Your task to perform on an android device: Open Youtube and go to "Your channel" Image 0: 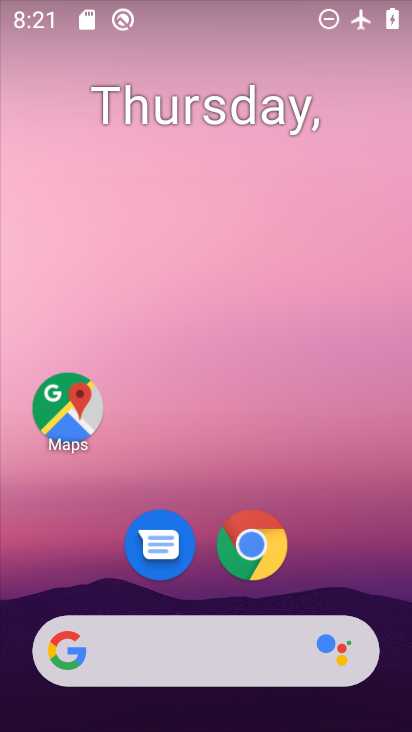
Step 0: drag from (305, 555) to (406, 266)
Your task to perform on an android device: Open Youtube and go to "Your channel" Image 1: 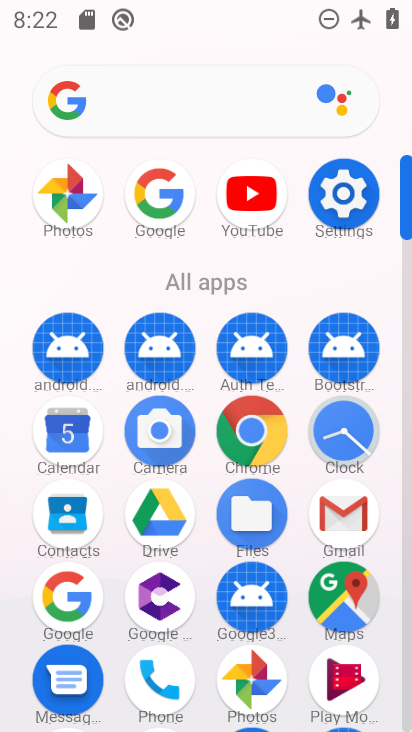
Step 1: click (253, 199)
Your task to perform on an android device: Open Youtube and go to "Your channel" Image 2: 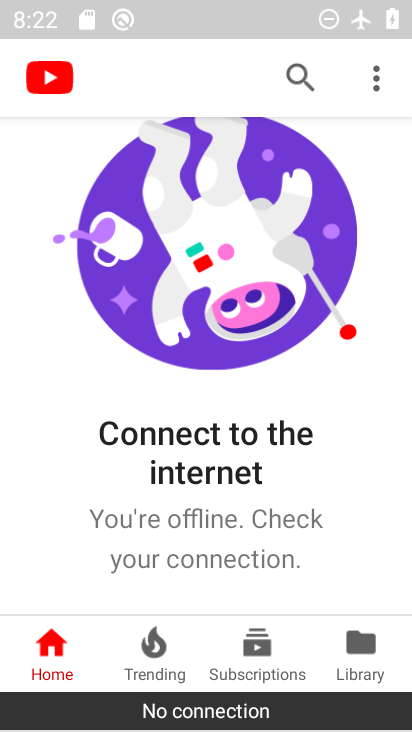
Step 2: click (165, 651)
Your task to perform on an android device: Open Youtube and go to "Your channel" Image 3: 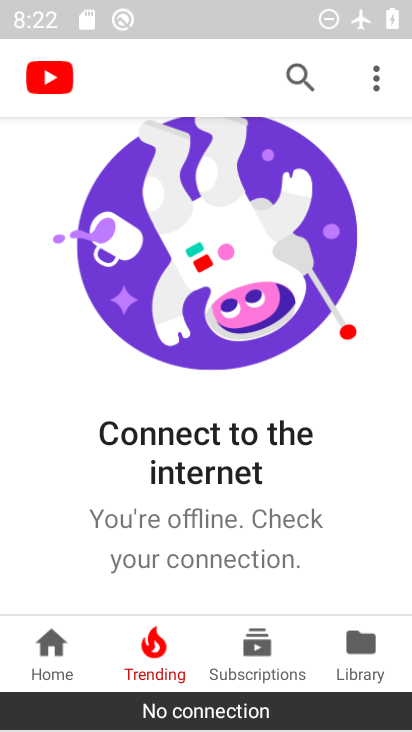
Step 3: click (247, 651)
Your task to perform on an android device: Open Youtube and go to "Your channel" Image 4: 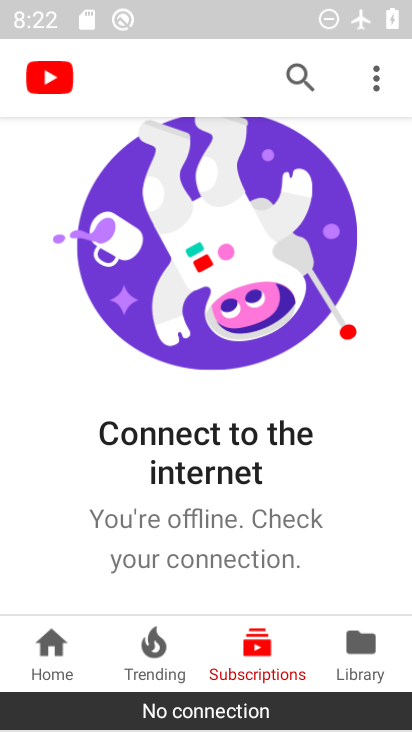
Step 4: click (366, 641)
Your task to perform on an android device: Open Youtube and go to "Your channel" Image 5: 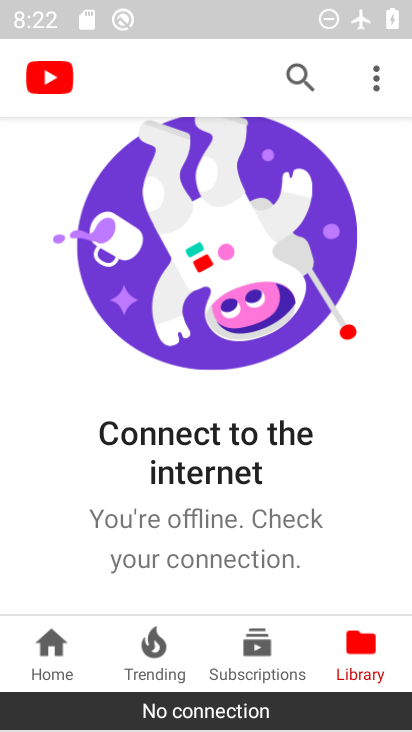
Step 5: click (379, 74)
Your task to perform on an android device: Open Youtube and go to "Your channel" Image 6: 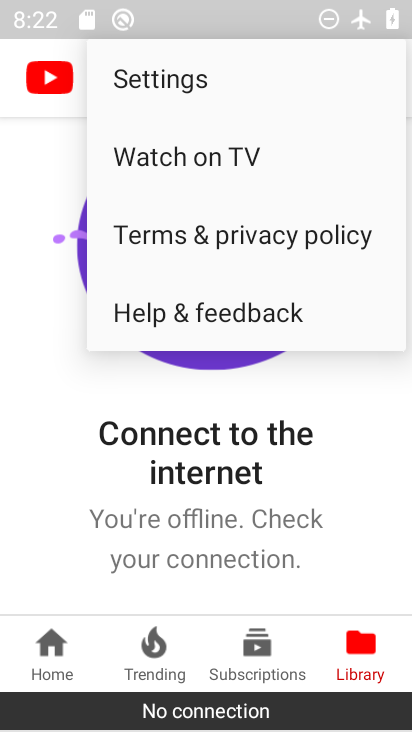
Step 6: click (153, 83)
Your task to perform on an android device: Open Youtube and go to "Your channel" Image 7: 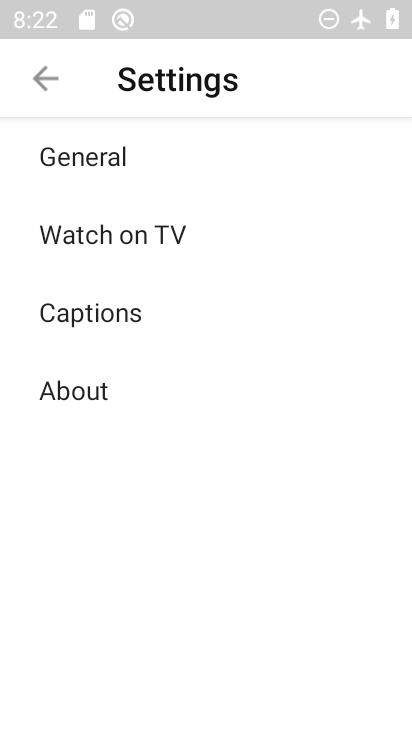
Step 7: click (45, 69)
Your task to perform on an android device: Open Youtube and go to "Your channel" Image 8: 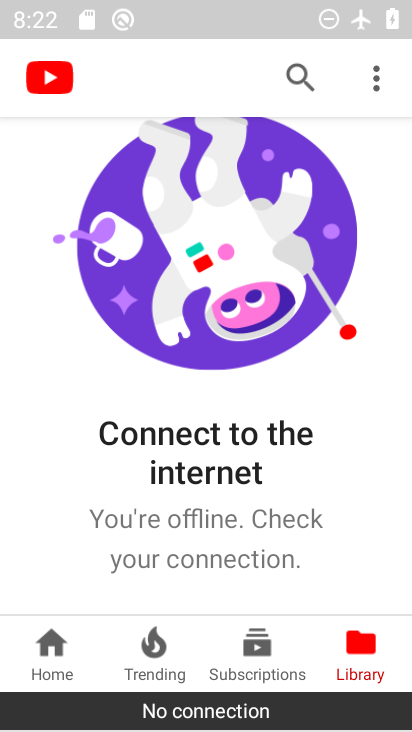
Step 8: task complete